Your task to perform on an android device: What is the recent news? Image 0: 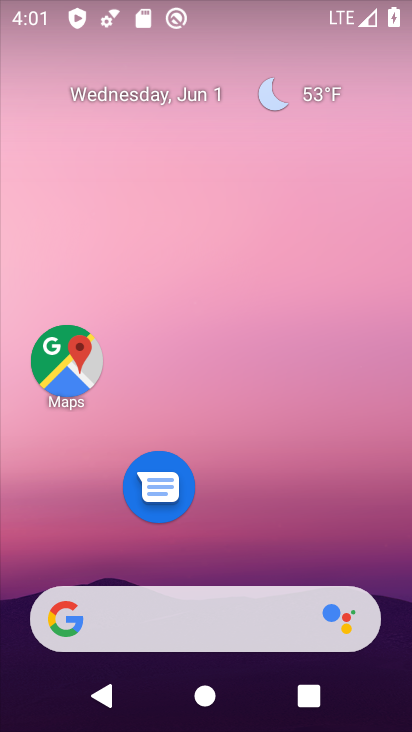
Step 0: click (185, 622)
Your task to perform on an android device: What is the recent news? Image 1: 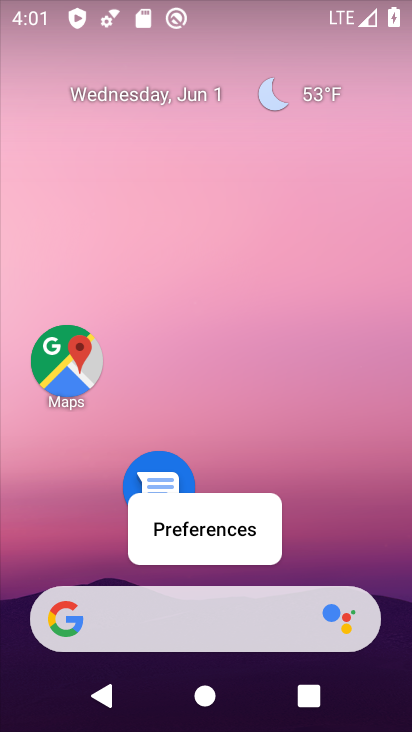
Step 1: click (185, 602)
Your task to perform on an android device: What is the recent news? Image 2: 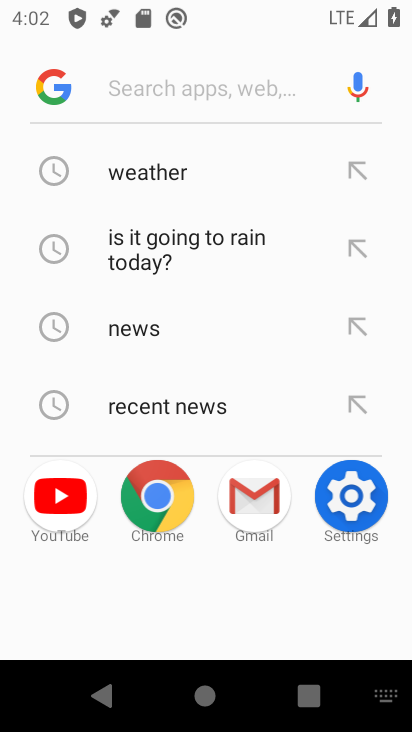
Step 2: click (214, 407)
Your task to perform on an android device: What is the recent news? Image 3: 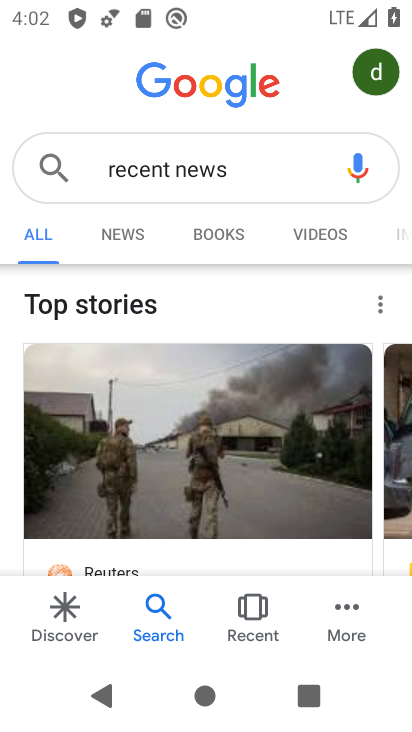
Step 3: task complete